Your task to perform on an android device: Open ESPN.com Image 0: 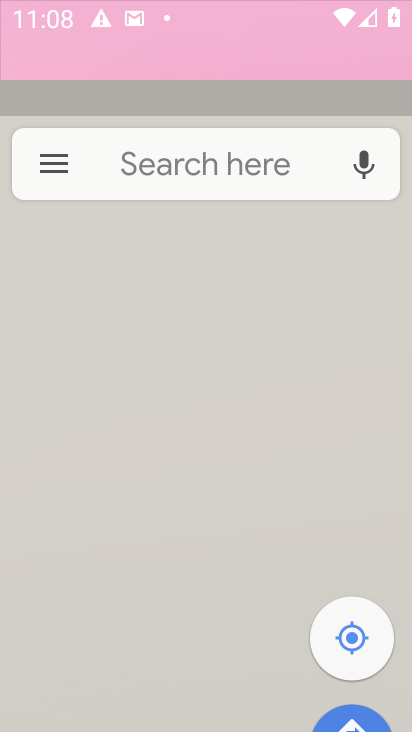
Step 0: press home button
Your task to perform on an android device: Open ESPN.com Image 1: 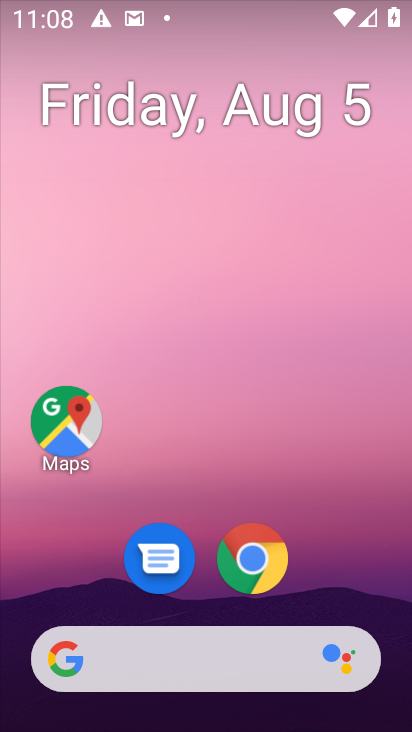
Step 1: drag from (343, 583) to (354, 181)
Your task to perform on an android device: Open ESPN.com Image 2: 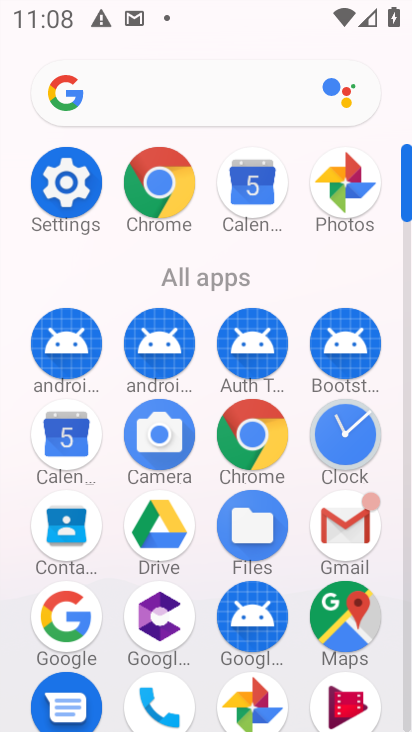
Step 2: click (248, 428)
Your task to perform on an android device: Open ESPN.com Image 3: 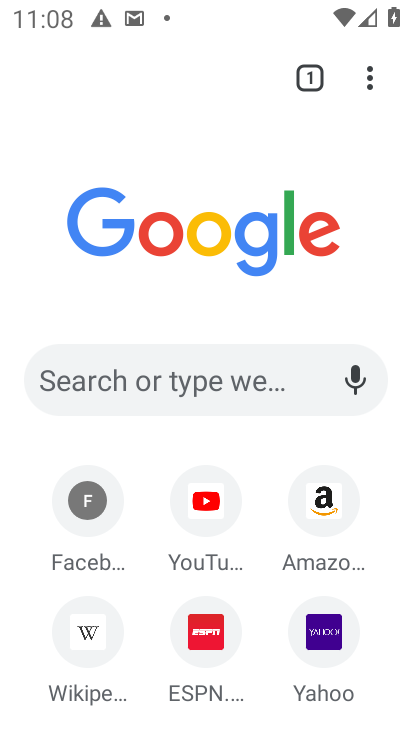
Step 3: click (242, 377)
Your task to perform on an android device: Open ESPN.com Image 4: 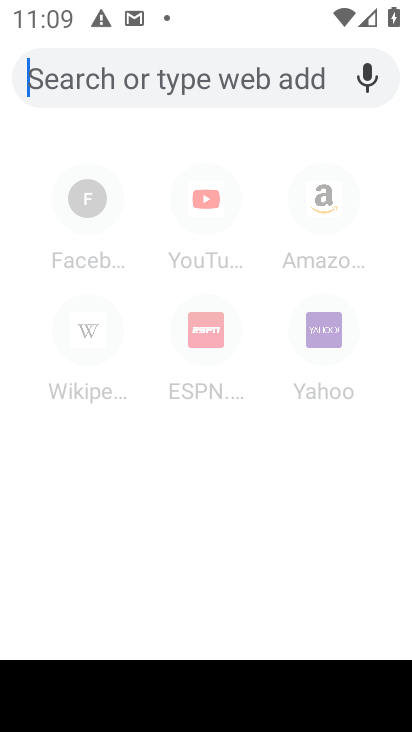
Step 4: click (291, 73)
Your task to perform on an android device: Open ESPN.com Image 5: 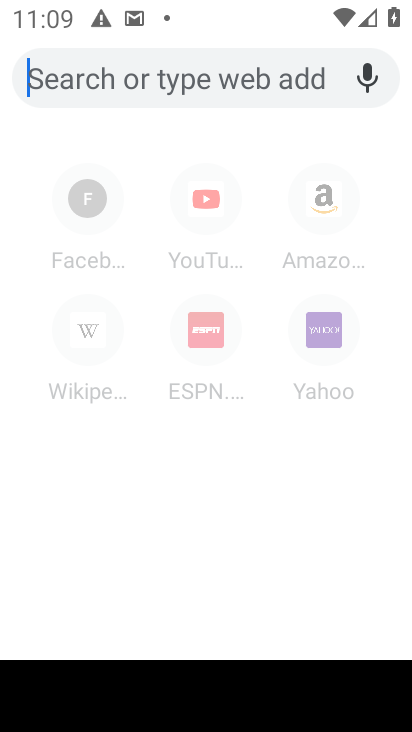
Step 5: type "espn.com"
Your task to perform on an android device: Open ESPN.com Image 6: 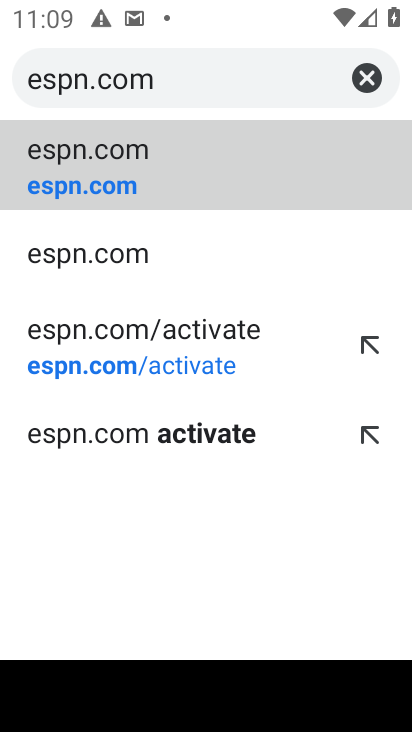
Step 6: click (330, 168)
Your task to perform on an android device: Open ESPN.com Image 7: 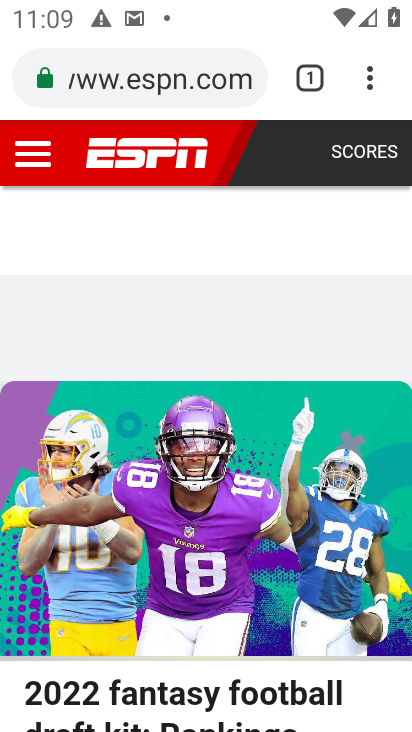
Step 7: task complete